Your task to perform on an android device: Go to Wikipedia Image 0: 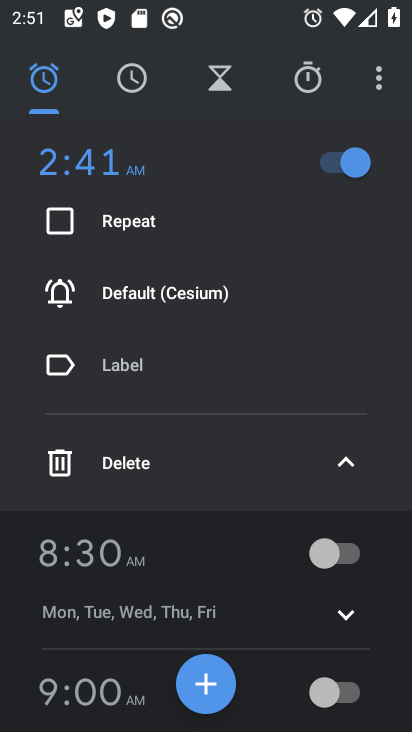
Step 0: press home button
Your task to perform on an android device: Go to Wikipedia Image 1: 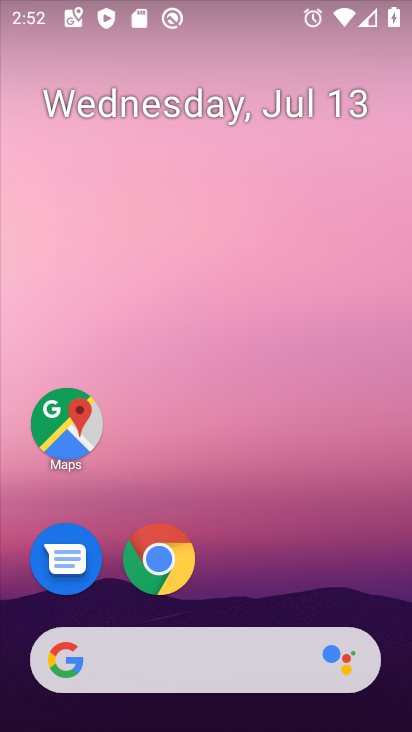
Step 1: drag from (308, 559) to (330, 89)
Your task to perform on an android device: Go to Wikipedia Image 2: 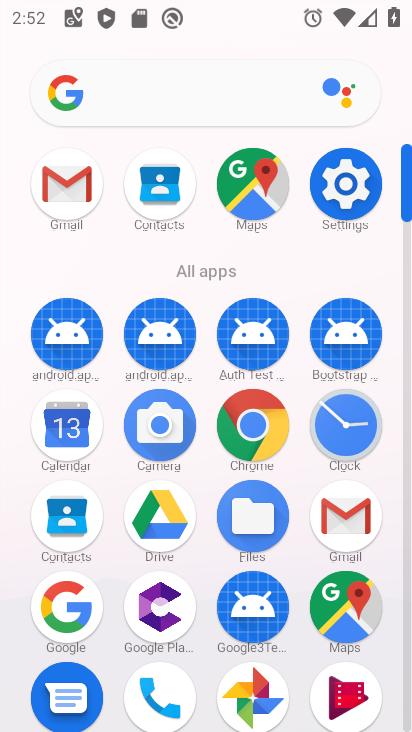
Step 2: drag from (383, 570) to (406, 329)
Your task to perform on an android device: Go to Wikipedia Image 3: 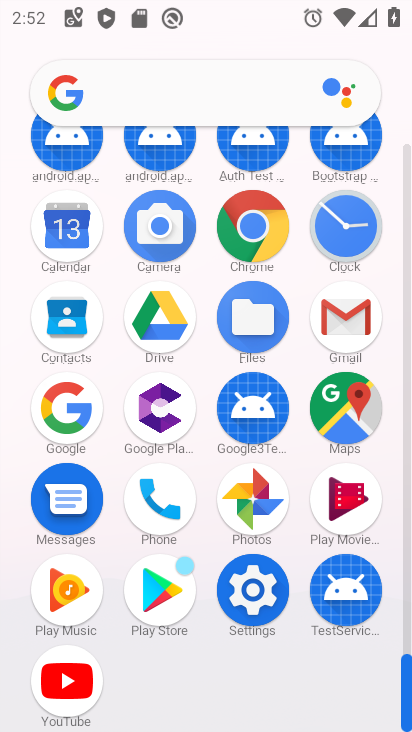
Step 3: click (263, 225)
Your task to perform on an android device: Go to Wikipedia Image 4: 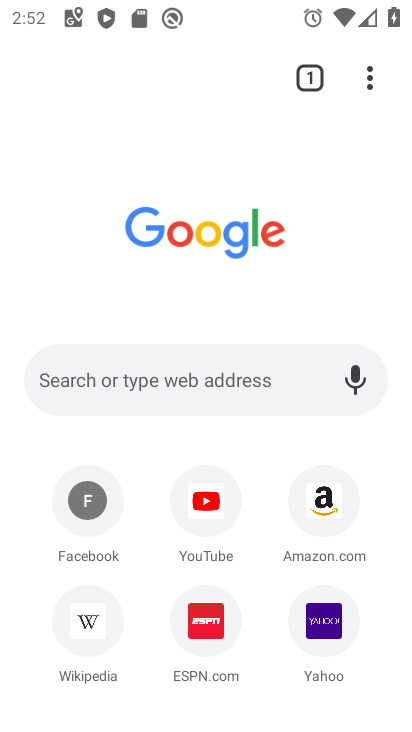
Step 4: click (99, 623)
Your task to perform on an android device: Go to Wikipedia Image 5: 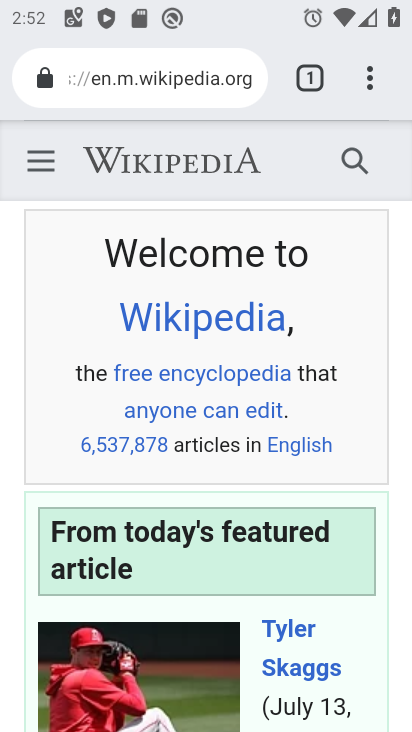
Step 5: task complete